Your task to perform on an android device: turn off airplane mode Image 0: 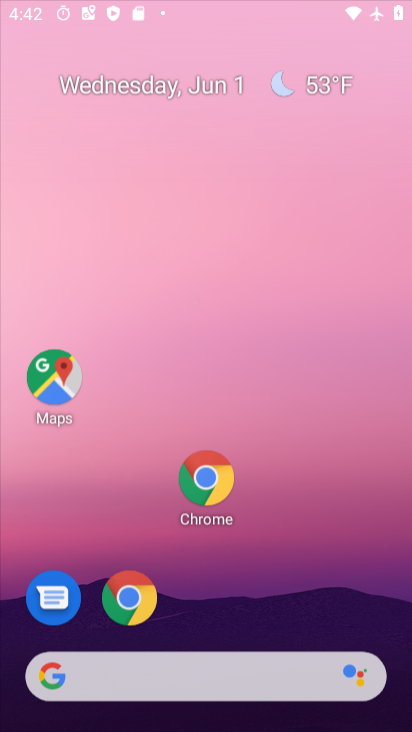
Step 0: drag from (250, 598) to (148, 87)
Your task to perform on an android device: turn off airplane mode Image 1: 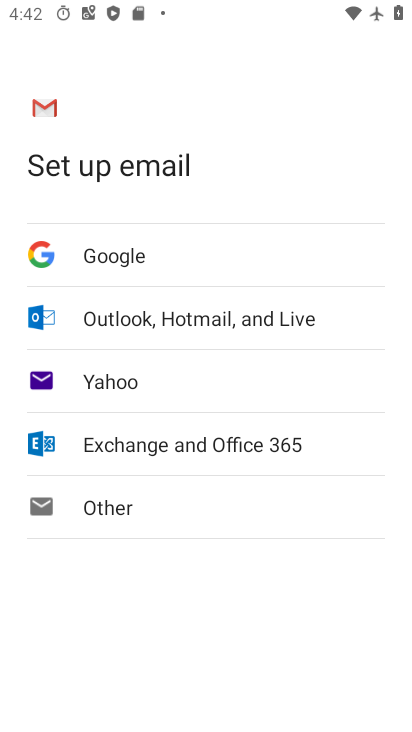
Step 1: press back button
Your task to perform on an android device: turn off airplane mode Image 2: 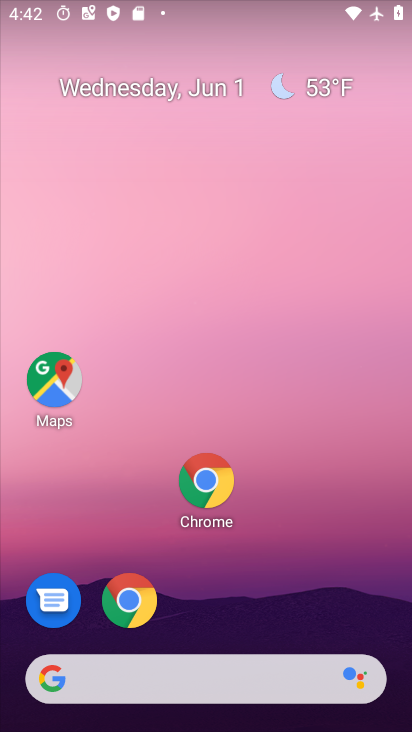
Step 2: drag from (220, 557) to (178, 224)
Your task to perform on an android device: turn off airplane mode Image 3: 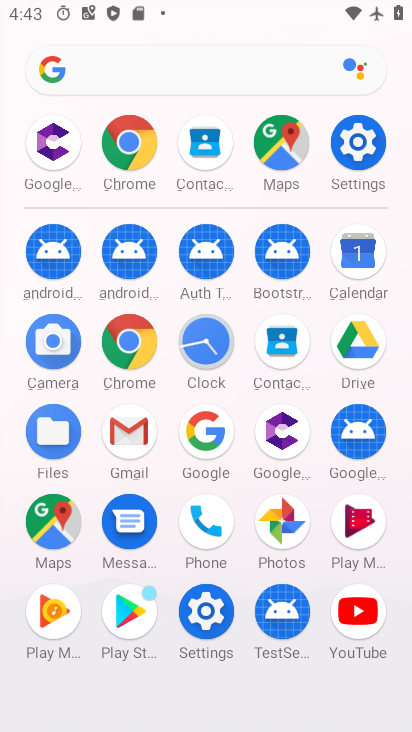
Step 3: click (360, 153)
Your task to perform on an android device: turn off airplane mode Image 4: 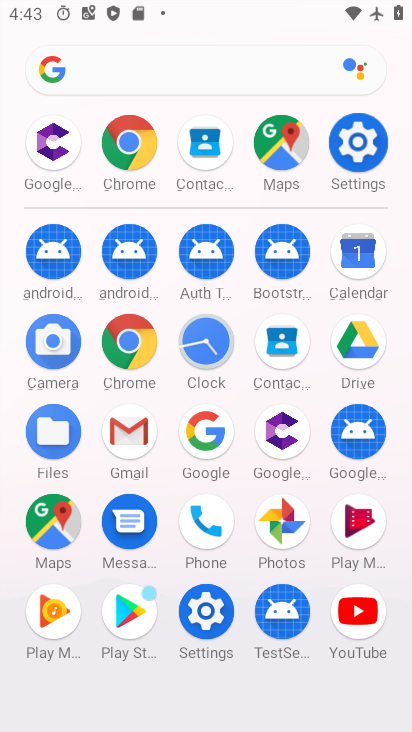
Step 4: click (360, 153)
Your task to perform on an android device: turn off airplane mode Image 5: 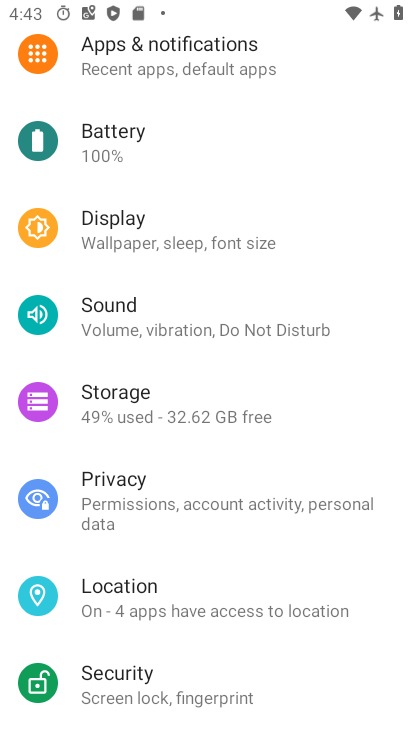
Step 5: drag from (149, 207) to (234, 657)
Your task to perform on an android device: turn off airplane mode Image 6: 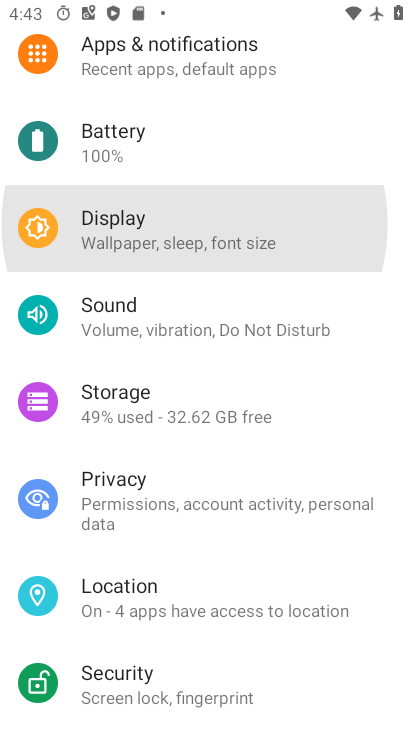
Step 6: drag from (137, 279) to (231, 681)
Your task to perform on an android device: turn off airplane mode Image 7: 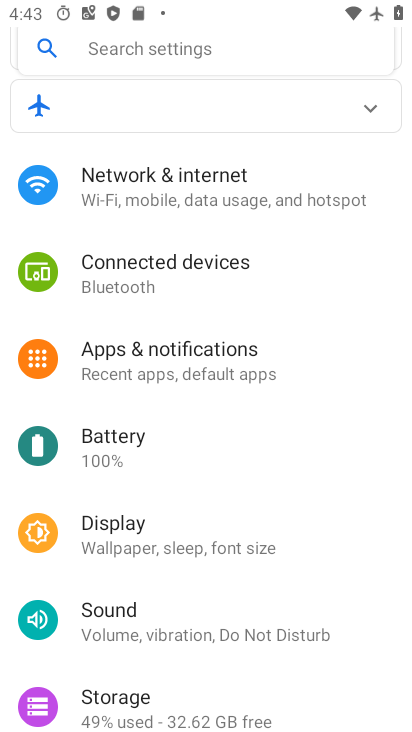
Step 7: drag from (191, 349) to (263, 666)
Your task to perform on an android device: turn off airplane mode Image 8: 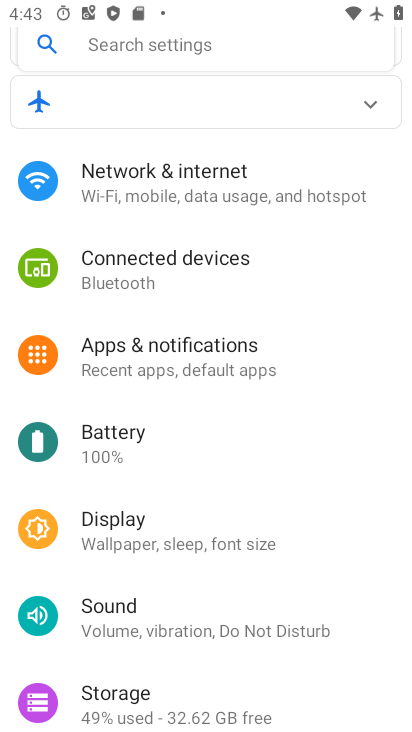
Step 8: drag from (234, 316) to (274, 569)
Your task to perform on an android device: turn off airplane mode Image 9: 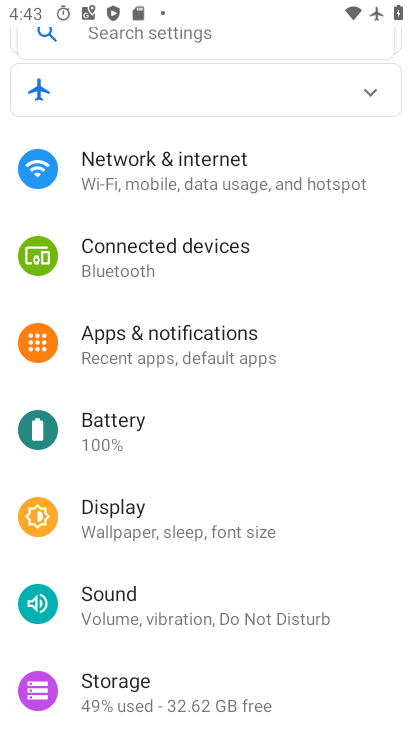
Step 9: drag from (128, 120) to (204, 482)
Your task to perform on an android device: turn off airplane mode Image 10: 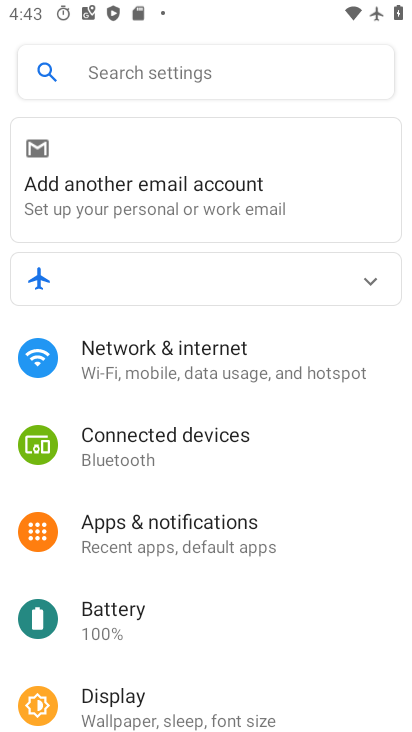
Step 10: click (193, 349)
Your task to perform on an android device: turn off airplane mode Image 11: 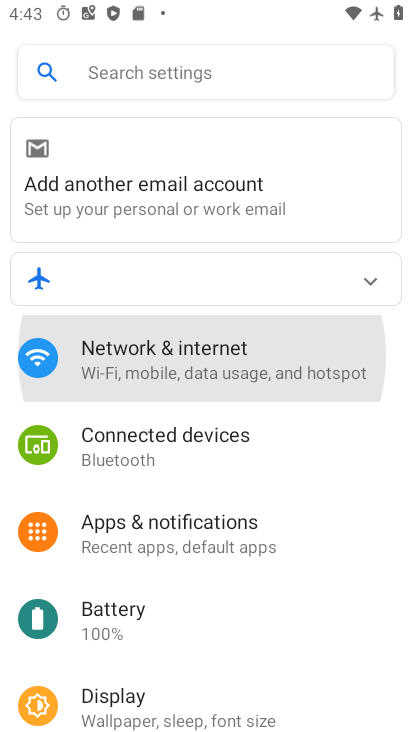
Step 11: click (193, 349)
Your task to perform on an android device: turn off airplane mode Image 12: 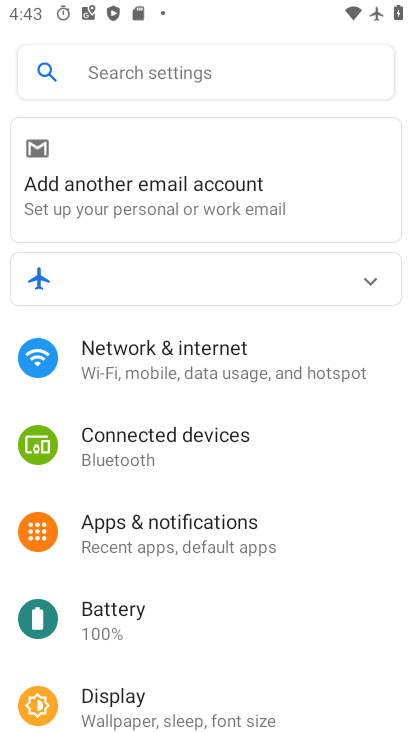
Step 12: click (193, 351)
Your task to perform on an android device: turn off airplane mode Image 13: 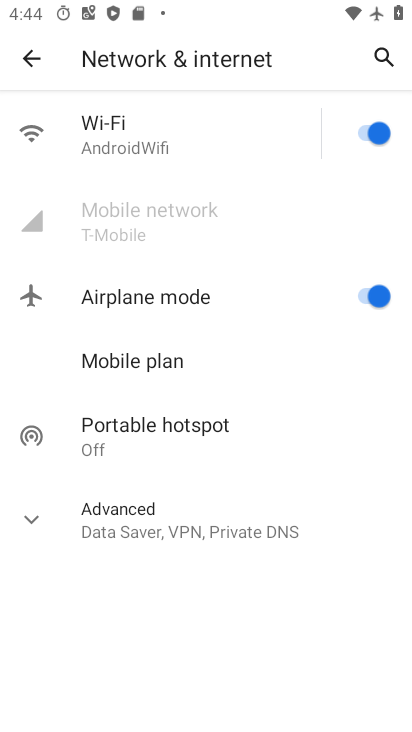
Step 13: click (376, 289)
Your task to perform on an android device: turn off airplane mode Image 14: 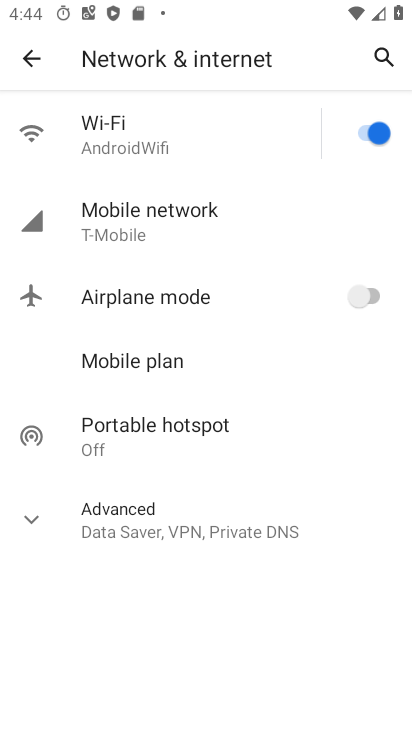
Step 14: task complete